Your task to perform on an android device: change the clock style Image 0: 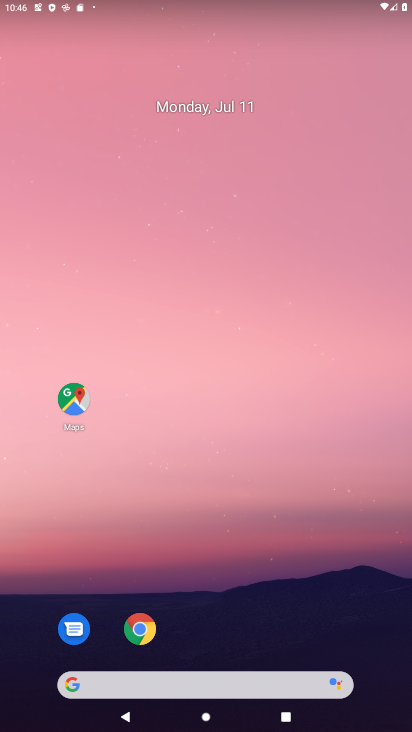
Step 0: drag from (292, 638) to (220, 10)
Your task to perform on an android device: change the clock style Image 1: 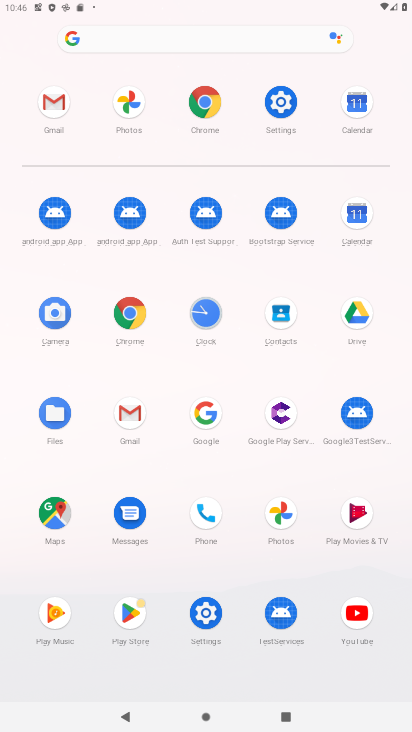
Step 1: click (273, 118)
Your task to perform on an android device: change the clock style Image 2: 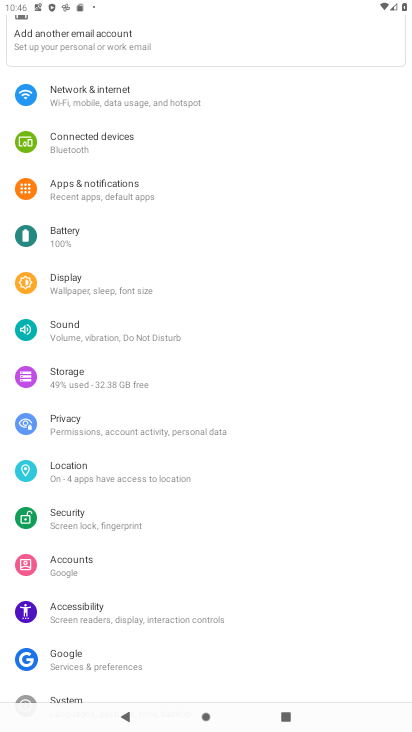
Step 2: press home button
Your task to perform on an android device: change the clock style Image 3: 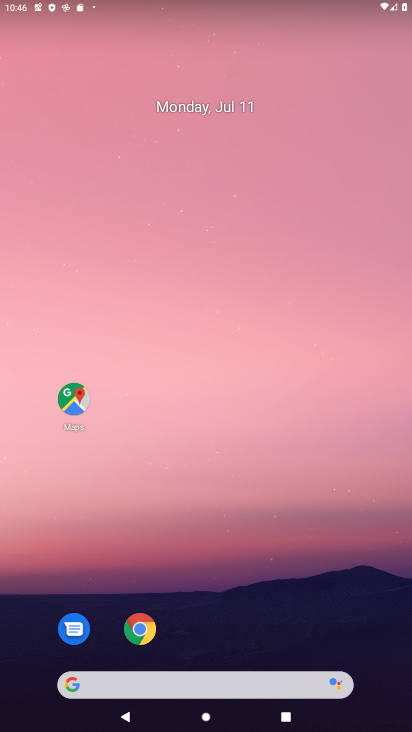
Step 3: drag from (220, 648) to (192, 221)
Your task to perform on an android device: change the clock style Image 4: 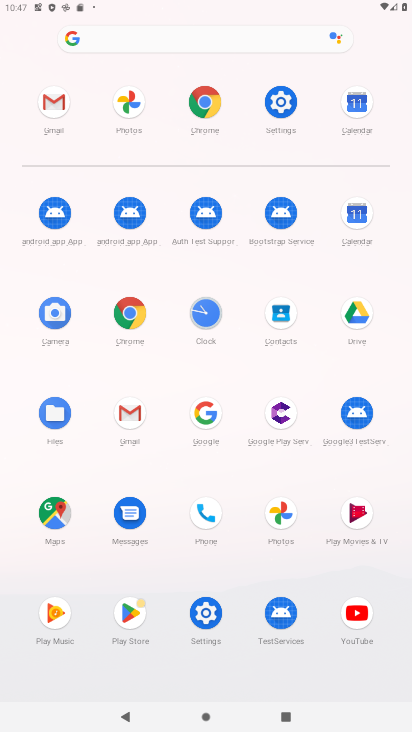
Step 4: click (192, 308)
Your task to perform on an android device: change the clock style Image 5: 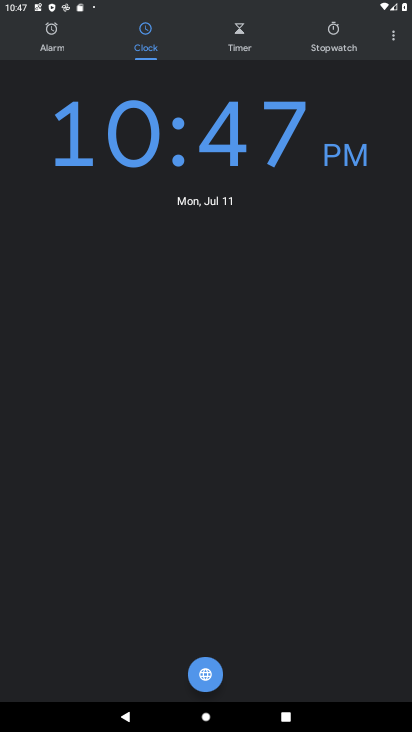
Step 5: click (379, 33)
Your task to perform on an android device: change the clock style Image 6: 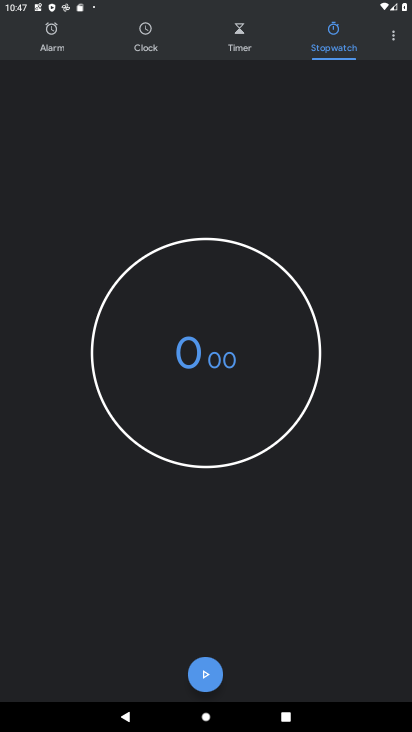
Step 6: click (393, 35)
Your task to perform on an android device: change the clock style Image 7: 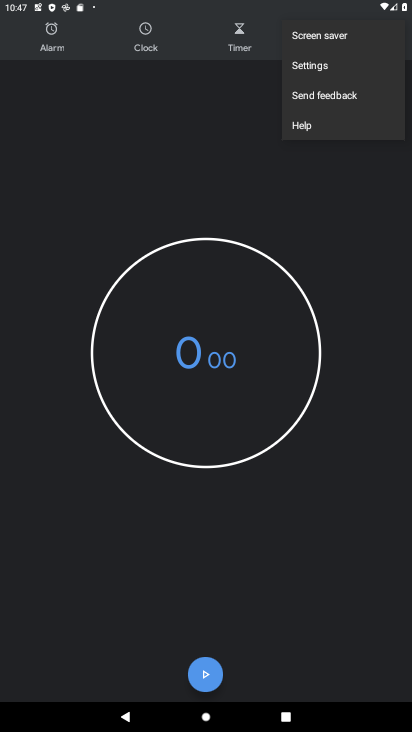
Step 7: click (324, 73)
Your task to perform on an android device: change the clock style Image 8: 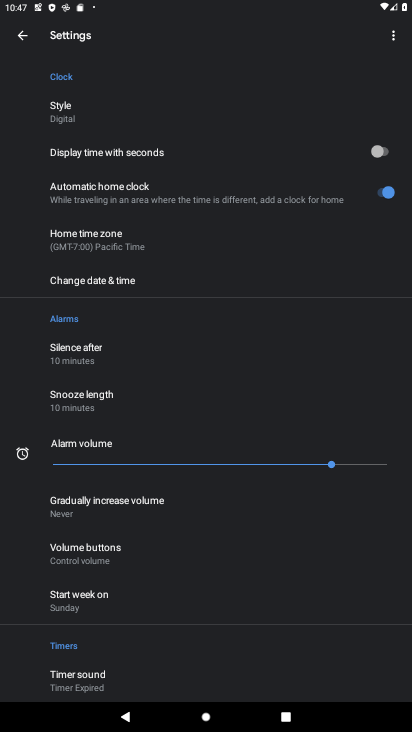
Step 8: click (73, 131)
Your task to perform on an android device: change the clock style Image 9: 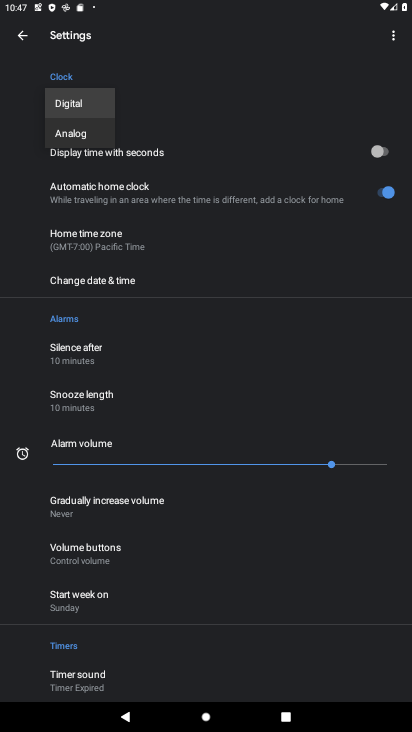
Step 9: click (73, 145)
Your task to perform on an android device: change the clock style Image 10: 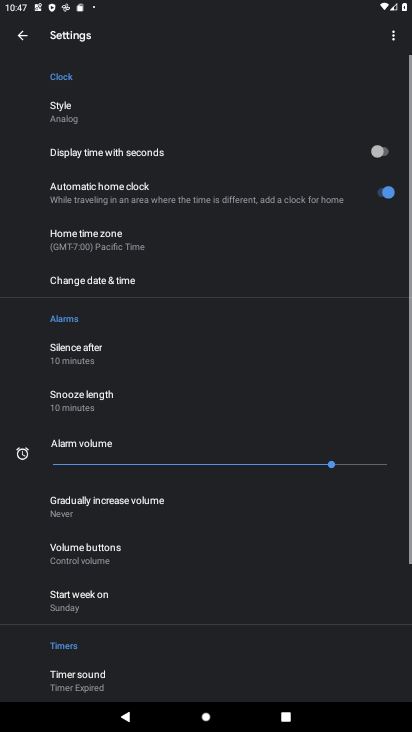
Step 10: task complete